Your task to perform on an android device: Search for bose quietcomfort 35 on bestbuy, select the first entry, add it to the cart, then select checkout. Image 0: 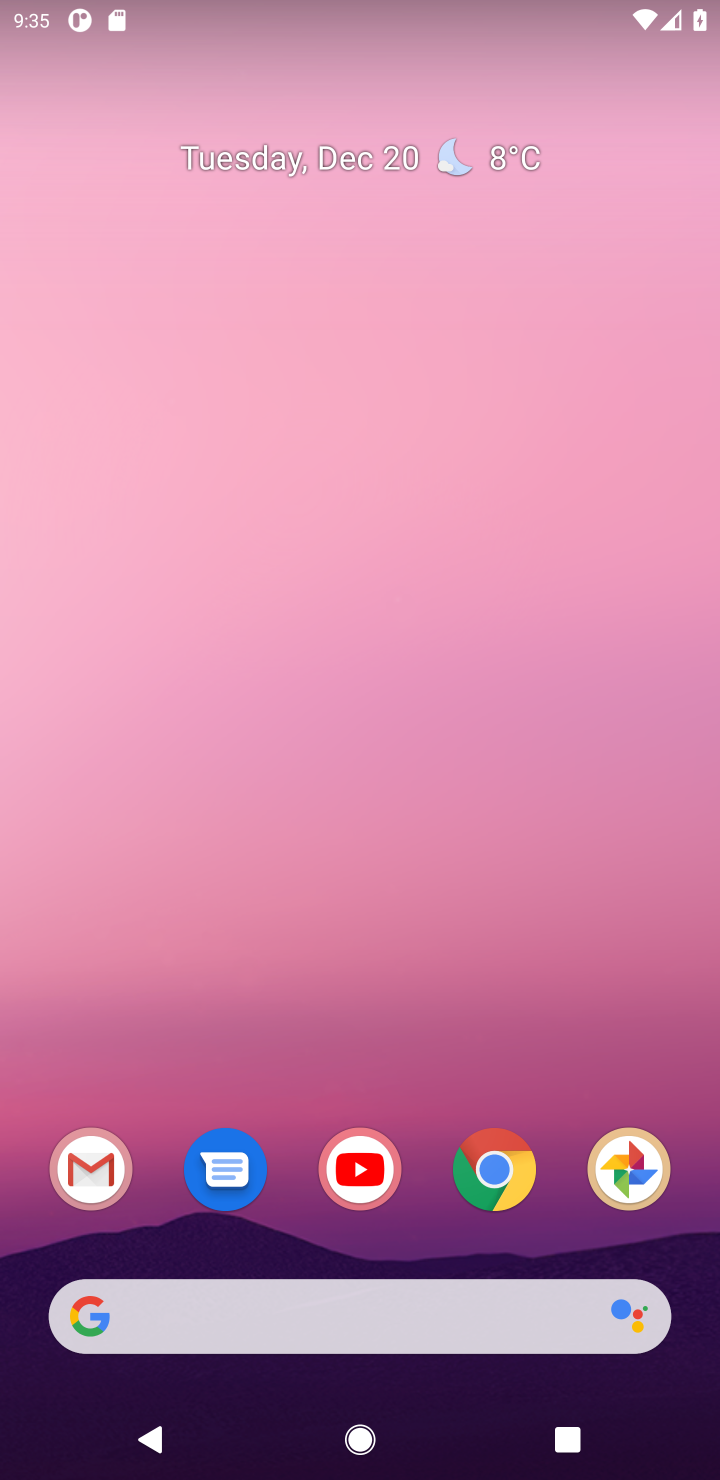
Step 0: click (498, 1152)
Your task to perform on an android device: Search for bose quietcomfort 35 on bestbuy, select the first entry, add it to the cart, then select checkout. Image 1: 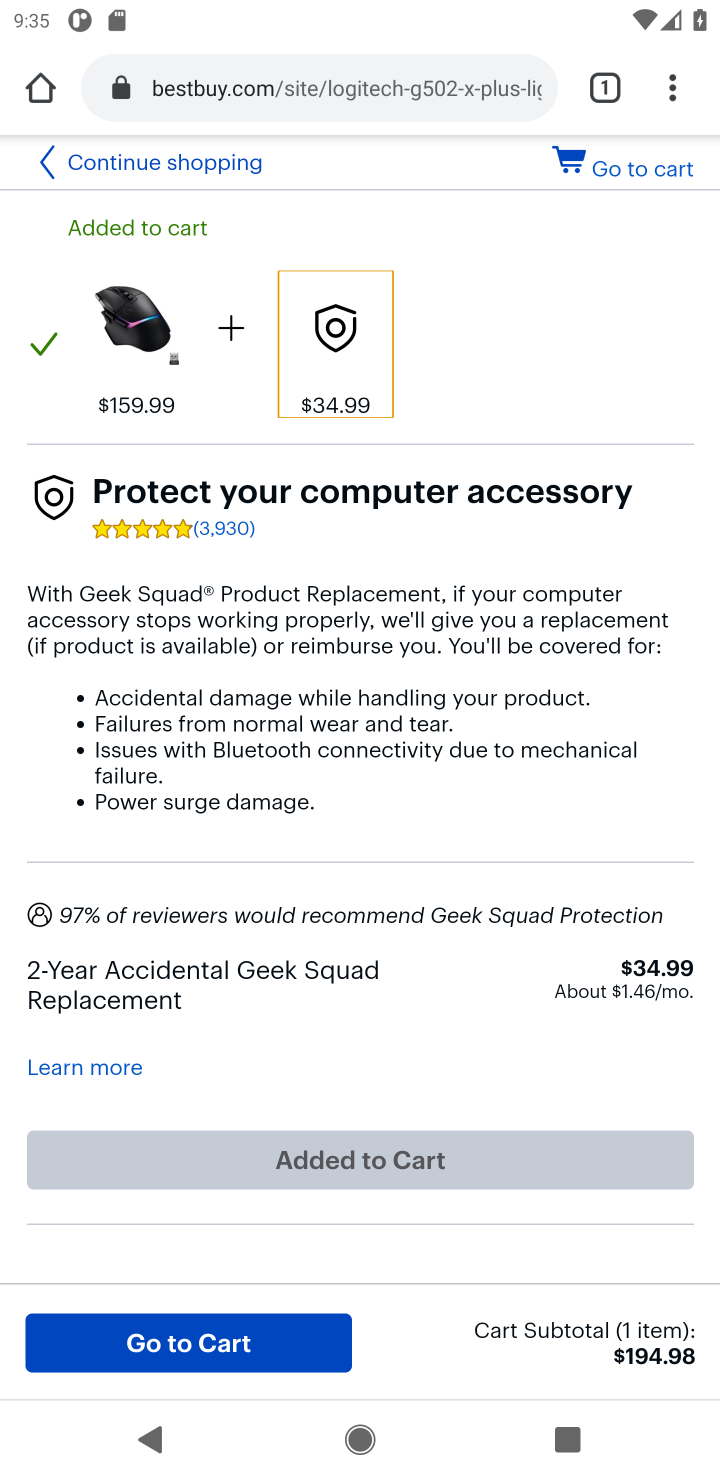
Step 1: drag from (485, 256) to (544, 917)
Your task to perform on an android device: Search for bose quietcomfort 35 on bestbuy, select the first entry, add it to the cart, then select checkout. Image 2: 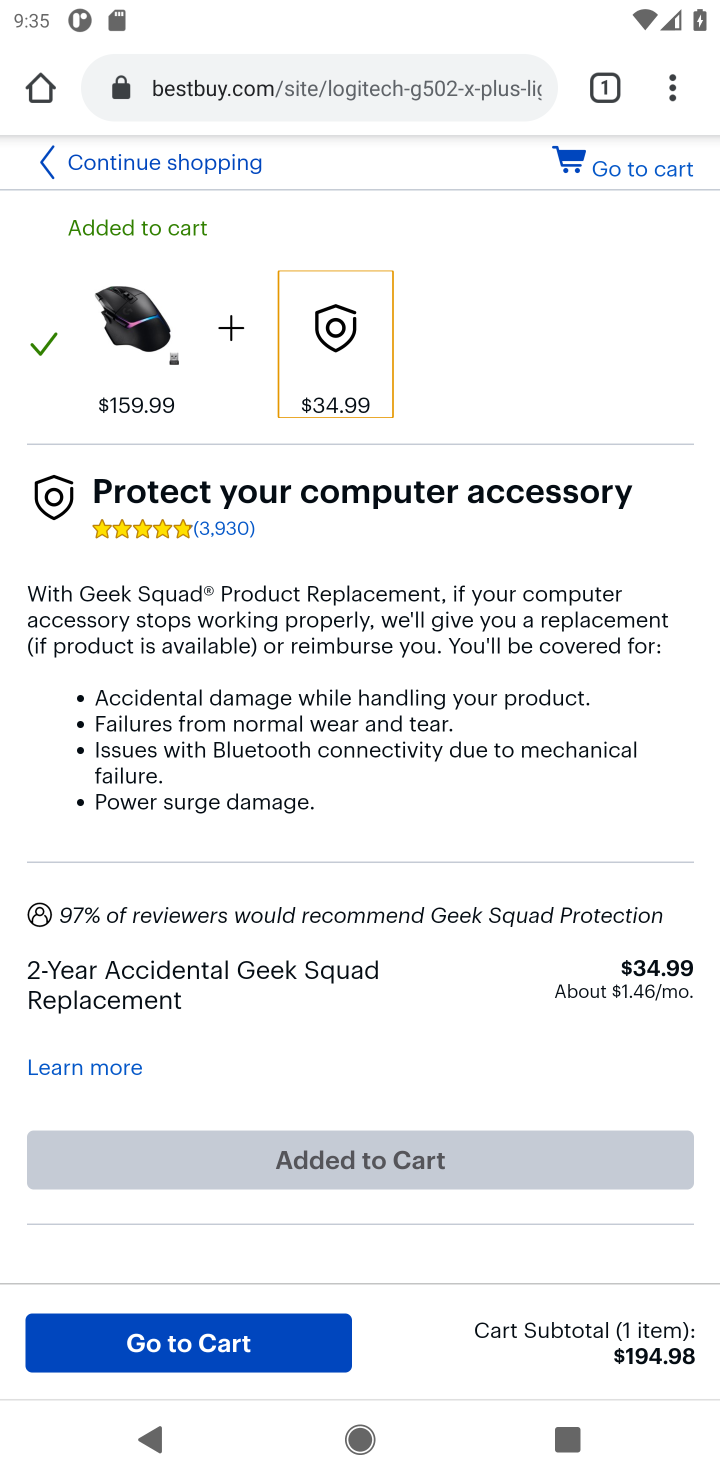
Step 2: click (88, 161)
Your task to perform on an android device: Search for bose quietcomfort 35 on bestbuy, select the first entry, add it to the cart, then select checkout. Image 3: 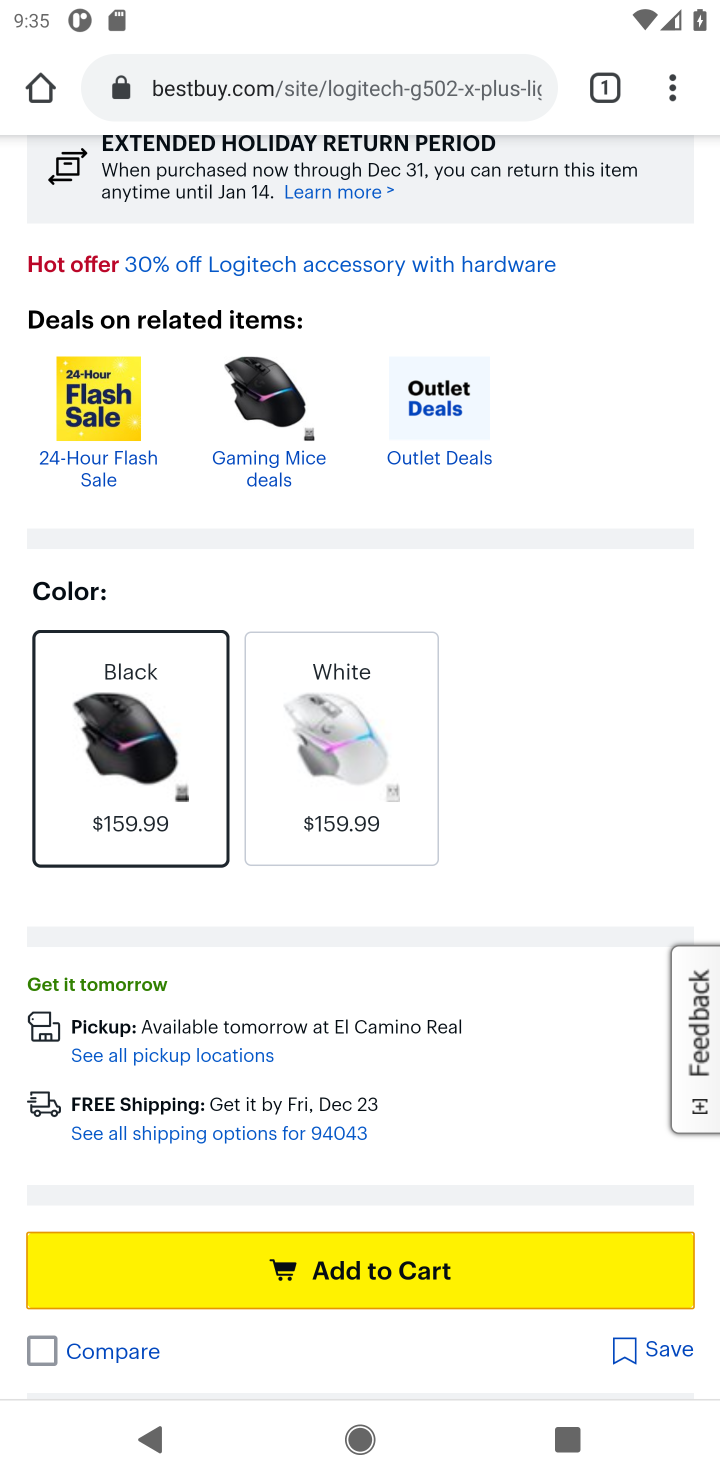
Step 3: drag from (575, 580) to (596, 1289)
Your task to perform on an android device: Search for bose quietcomfort 35 on bestbuy, select the first entry, add it to the cart, then select checkout. Image 4: 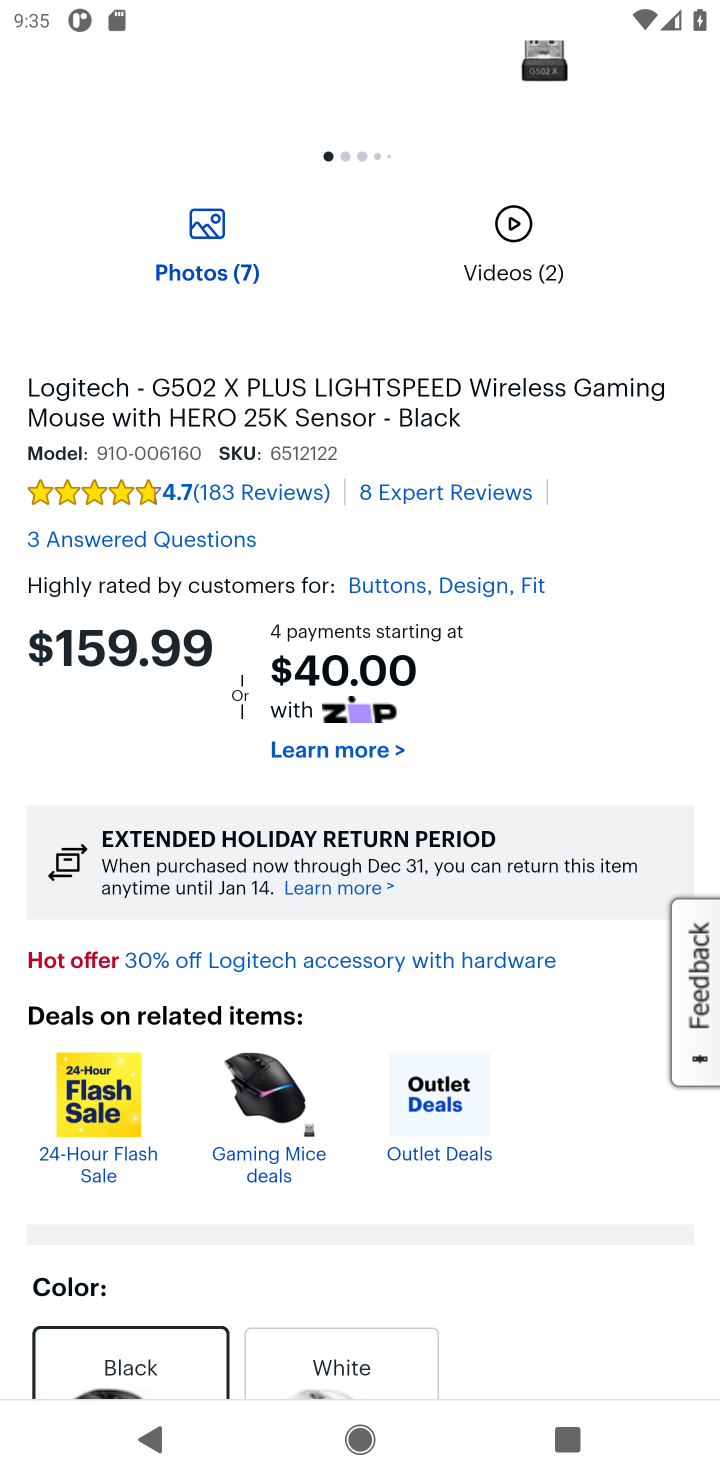
Step 4: drag from (615, 540) to (605, 1171)
Your task to perform on an android device: Search for bose quietcomfort 35 on bestbuy, select the first entry, add it to the cart, then select checkout. Image 5: 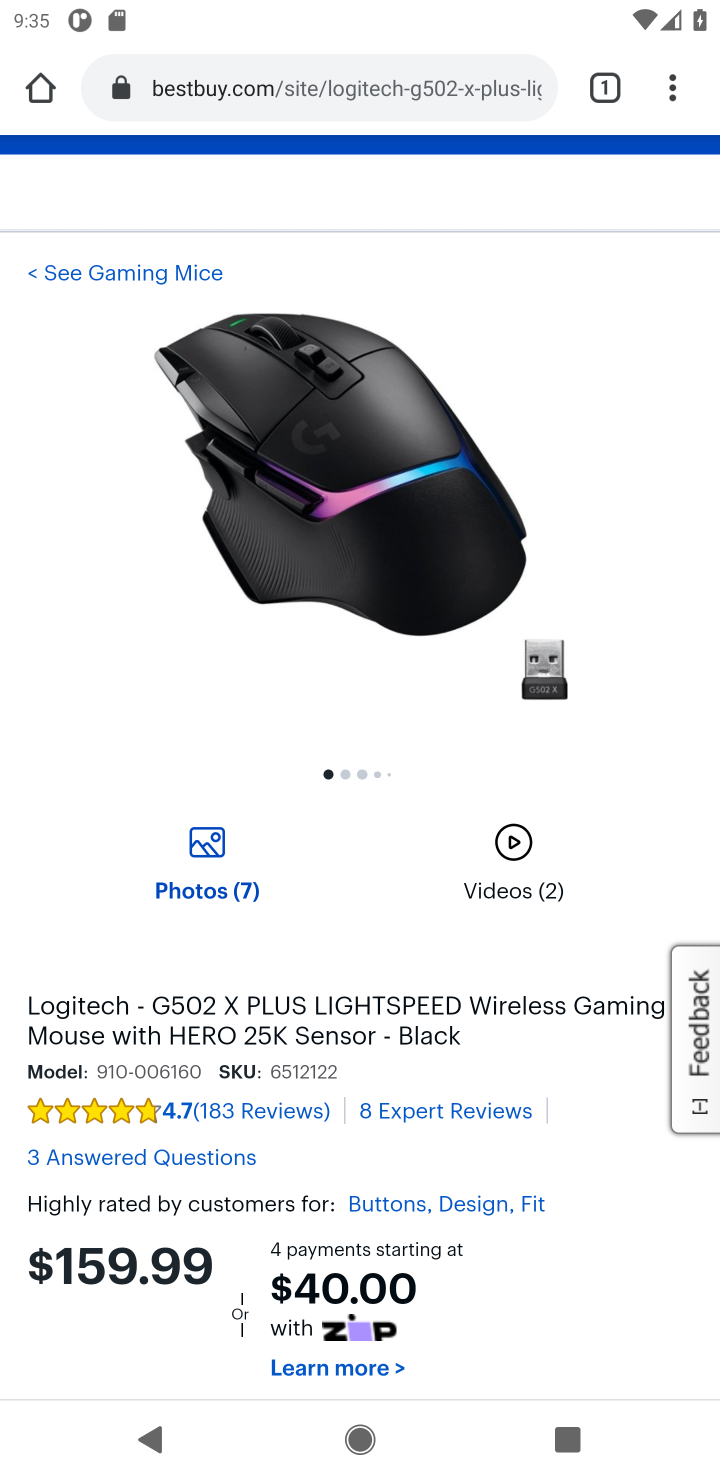
Step 5: click (473, 180)
Your task to perform on an android device: Search for bose quietcomfort 35 on bestbuy, select the first entry, add it to the cart, then select checkout. Image 6: 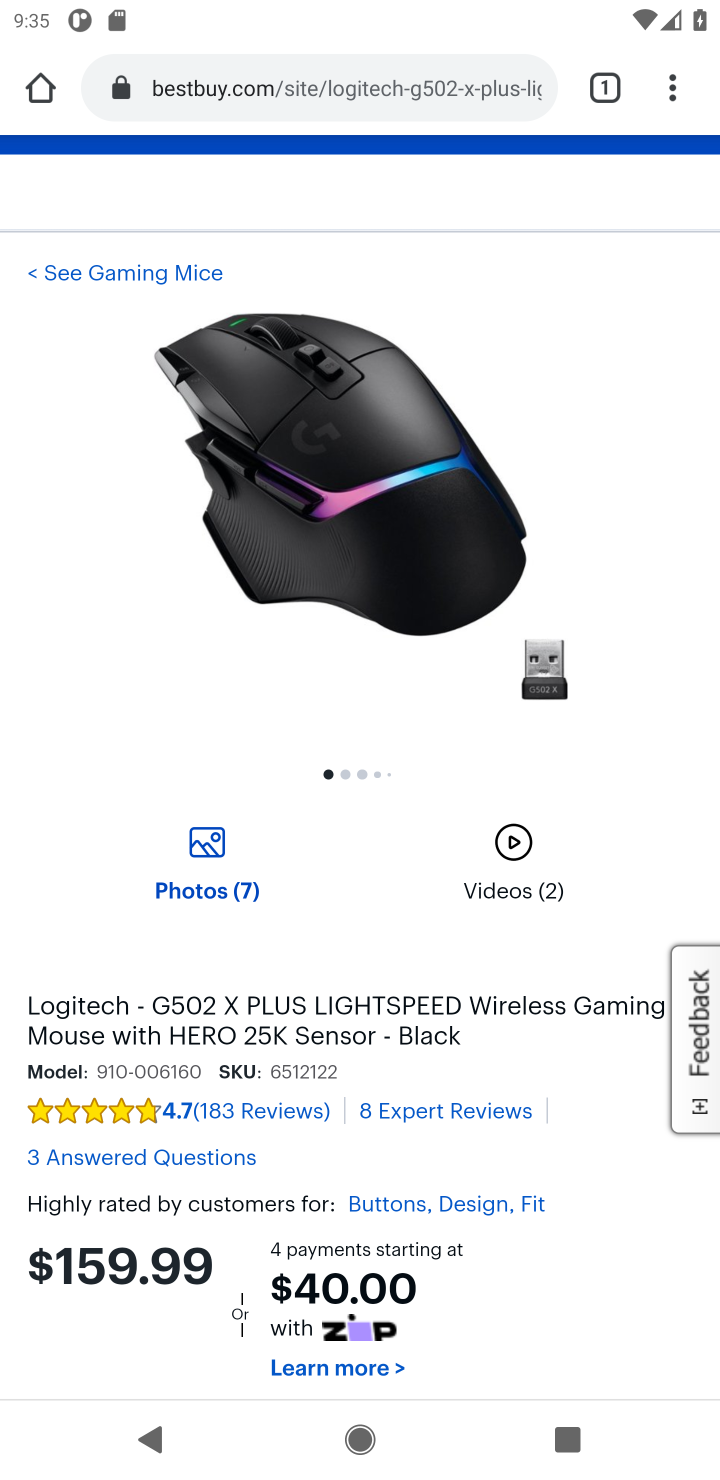
Step 6: drag from (643, 512) to (575, 1401)
Your task to perform on an android device: Search for bose quietcomfort 35 on bestbuy, select the first entry, add it to the cart, then select checkout. Image 7: 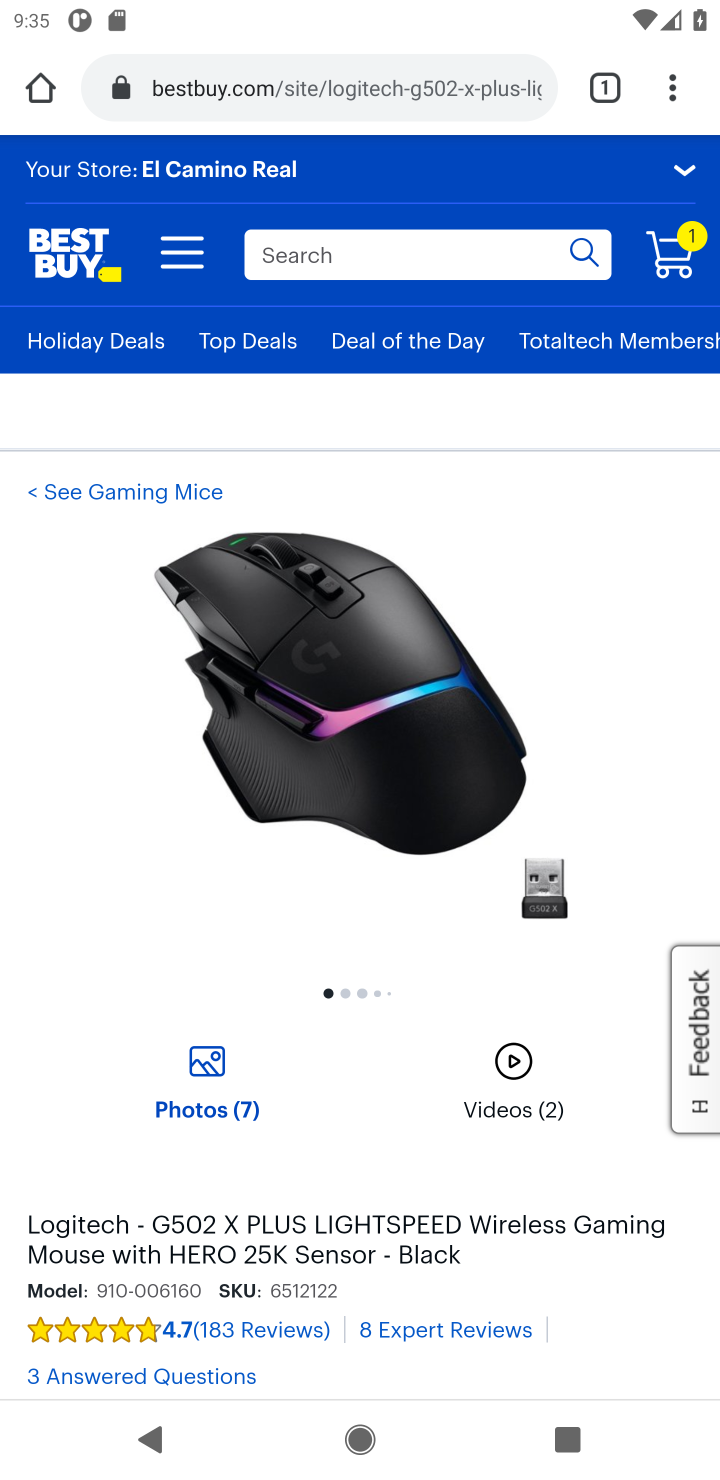
Step 7: click (299, 249)
Your task to perform on an android device: Search for bose quietcomfort 35 on bestbuy, select the first entry, add it to the cart, then select checkout. Image 8: 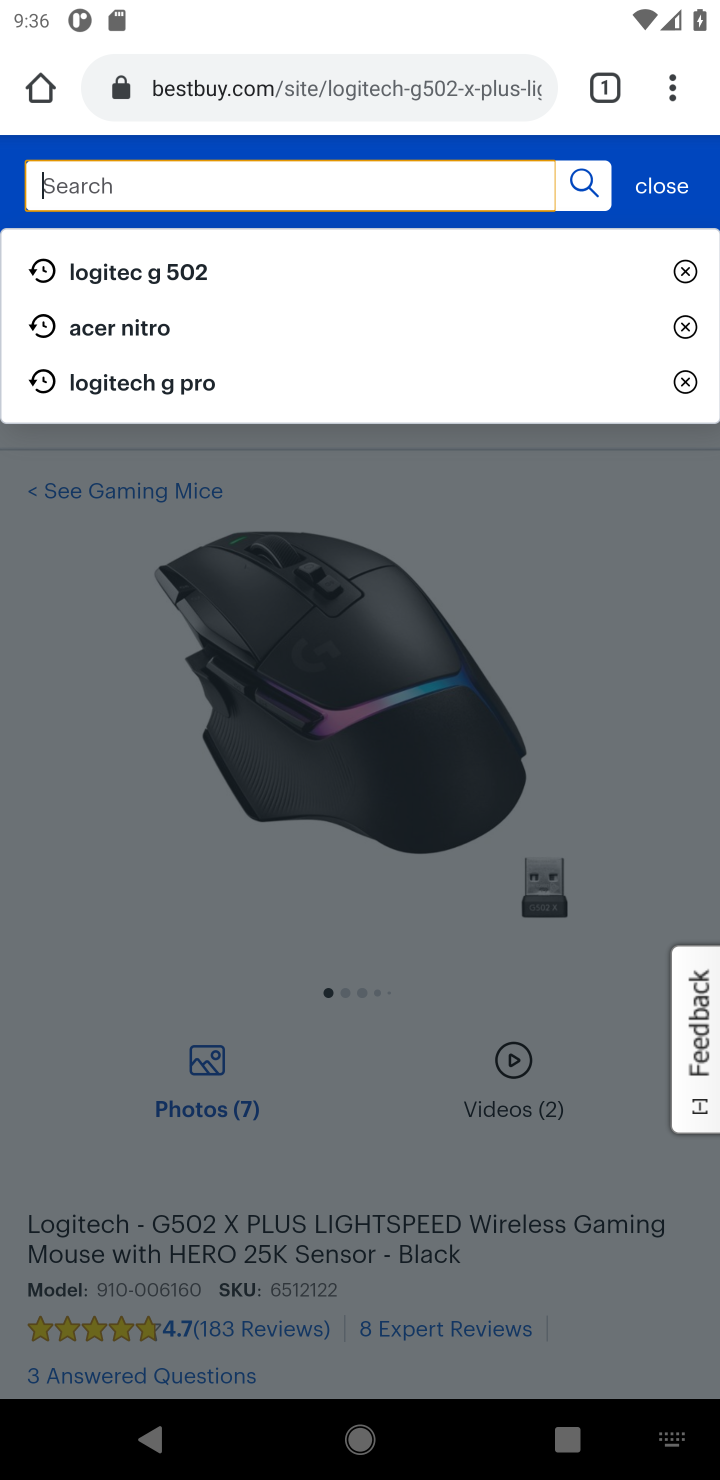
Step 8: type "bose quietcomfort 35"
Your task to perform on an android device: Search for bose quietcomfort 35 on bestbuy, select the first entry, add it to the cart, then select checkout. Image 9: 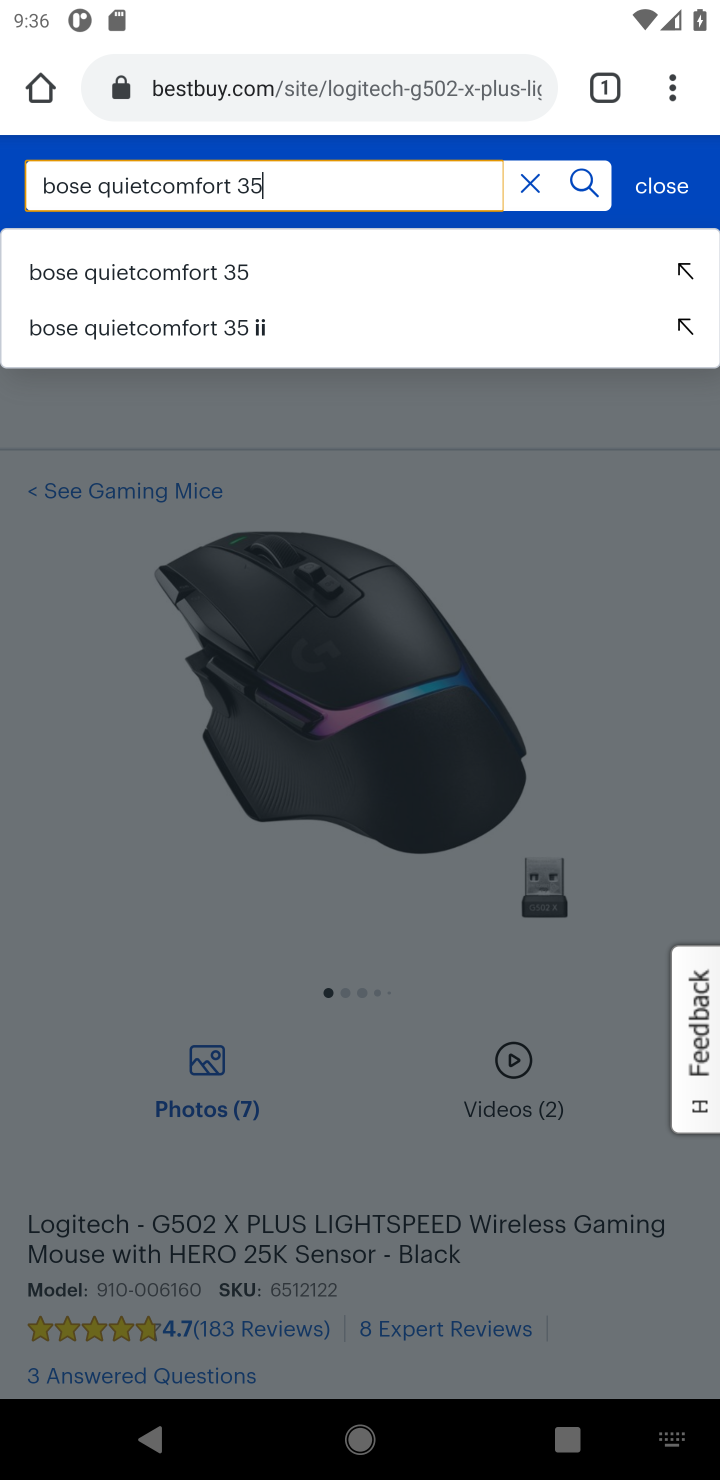
Step 9: click (590, 191)
Your task to perform on an android device: Search for bose quietcomfort 35 on bestbuy, select the first entry, add it to the cart, then select checkout. Image 10: 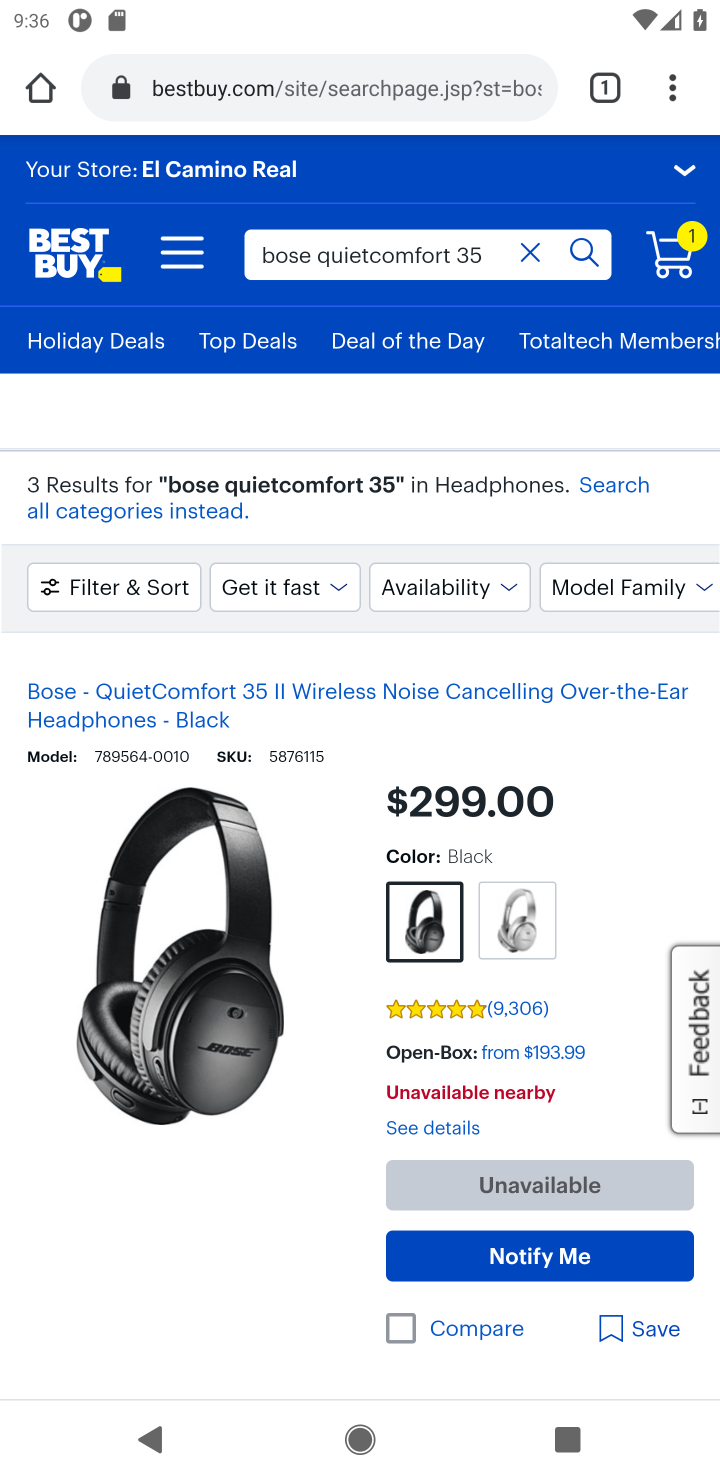
Step 10: task complete